Your task to perform on an android device: add a label to a message in the gmail app Image 0: 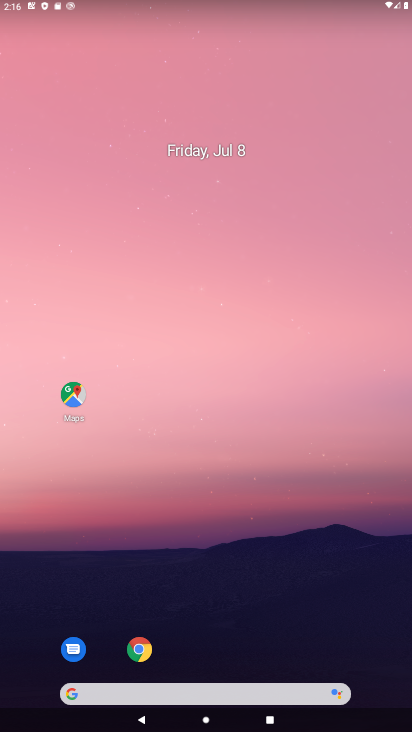
Step 0: drag from (343, 659) to (329, 39)
Your task to perform on an android device: add a label to a message in the gmail app Image 1: 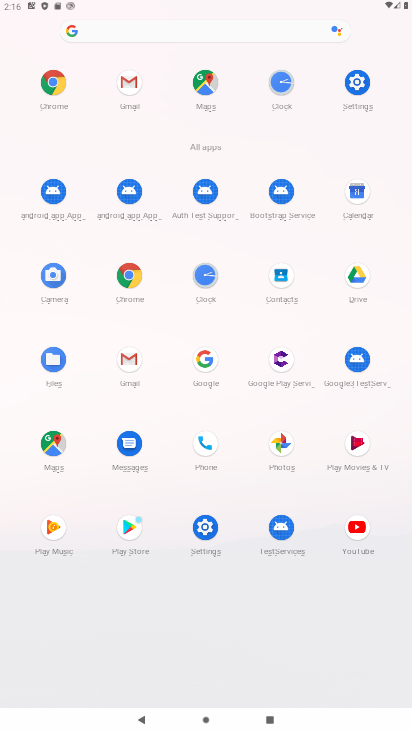
Step 1: click (127, 358)
Your task to perform on an android device: add a label to a message in the gmail app Image 2: 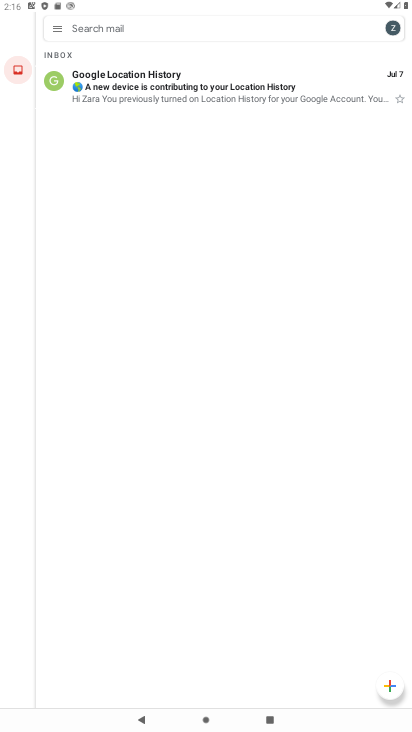
Step 2: click (149, 87)
Your task to perform on an android device: add a label to a message in the gmail app Image 3: 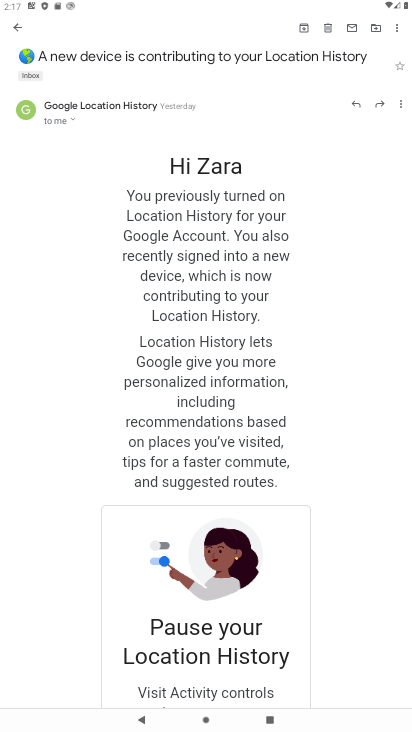
Step 3: click (400, 102)
Your task to perform on an android device: add a label to a message in the gmail app Image 4: 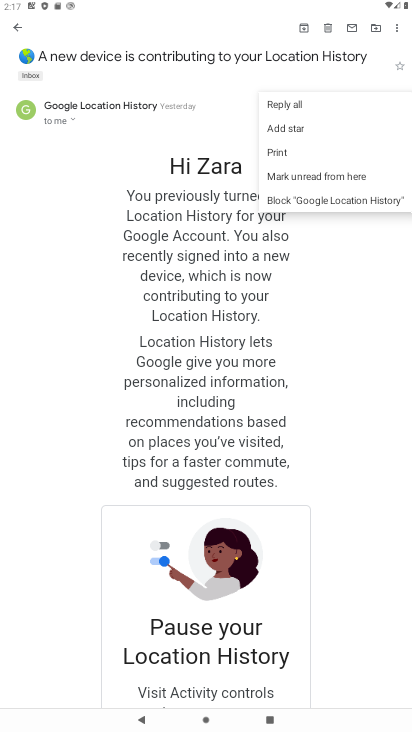
Step 4: click (322, 242)
Your task to perform on an android device: add a label to a message in the gmail app Image 5: 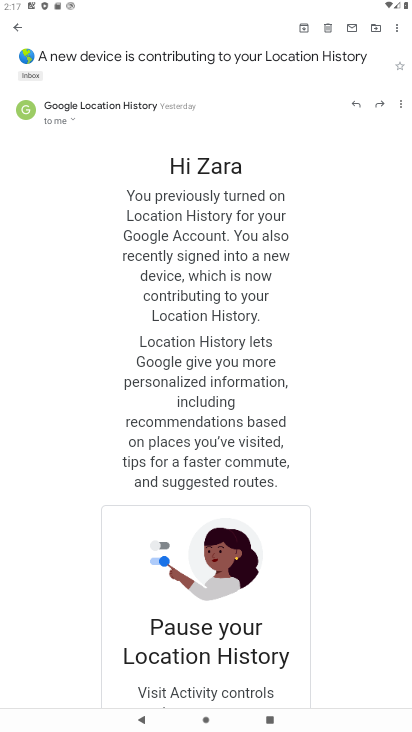
Step 5: click (396, 30)
Your task to perform on an android device: add a label to a message in the gmail app Image 6: 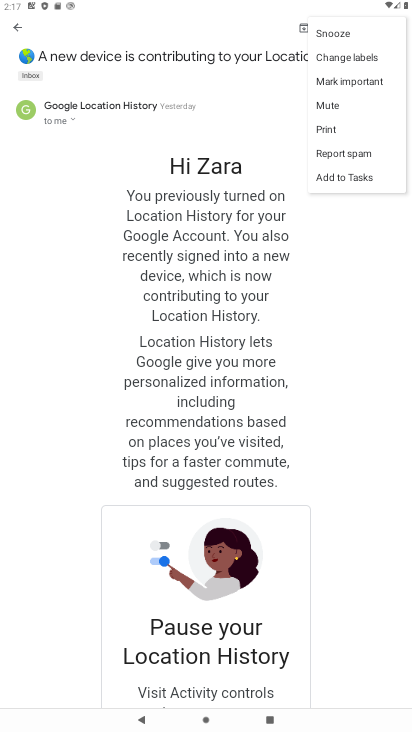
Step 6: click (333, 57)
Your task to perform on an android device: add a label to a message in the gmail app Image 7: 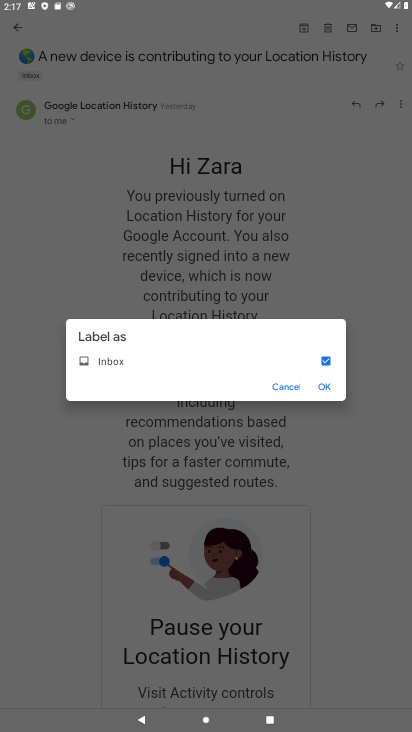
Step 7: click (321, 385)
Your task to perform on an android device: add a label to a message in the gmail app Image 8: 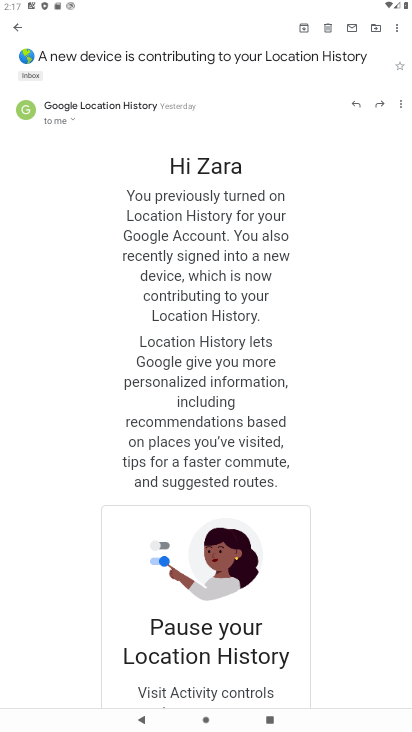
Step 8: task complete